Your task to perform on an android device: turn on javascript in the chrome app Image 0: 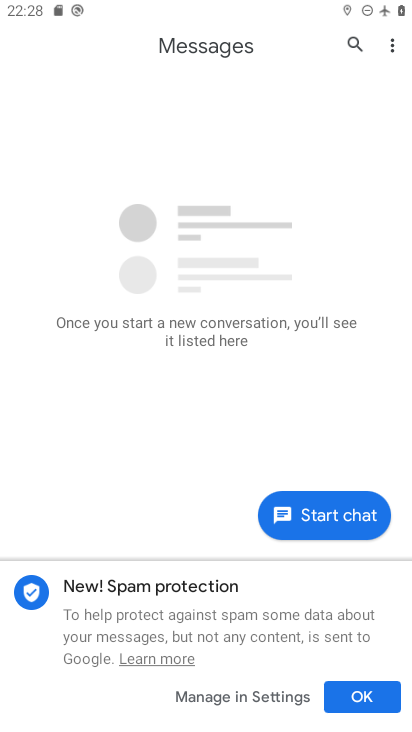
Step 0: press home button
Your task to perform on an android device: turn on javascript in the chrome app Image 1: 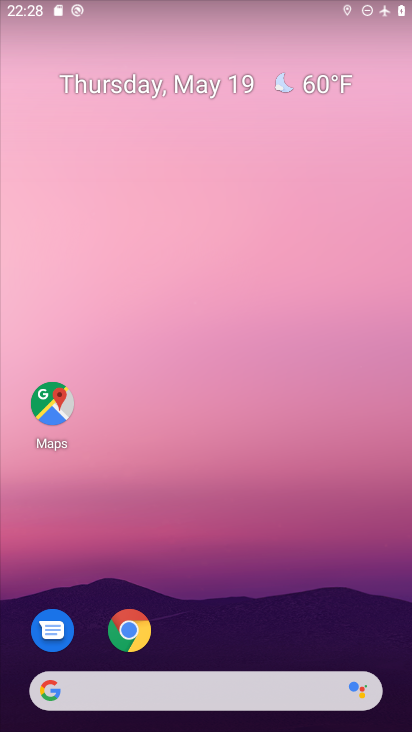
Step 1: click (129, 622)
Your task to perform on an android device: turn on javascript in the chrome app Image 2: 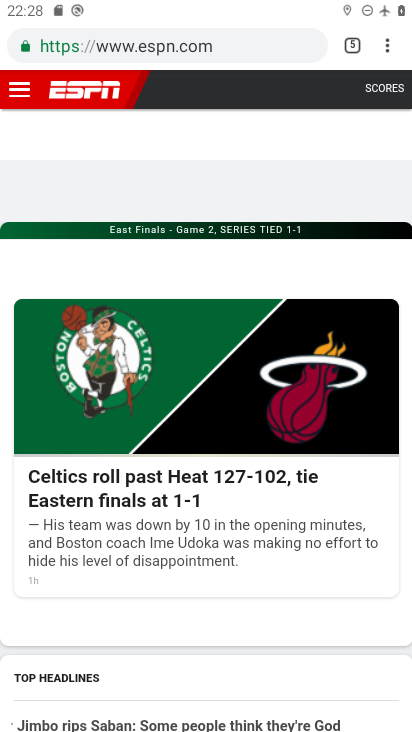
Step 2: click (389, 43)
Your task to perform on an android device: turn on javascript in the chrome app Image 3: 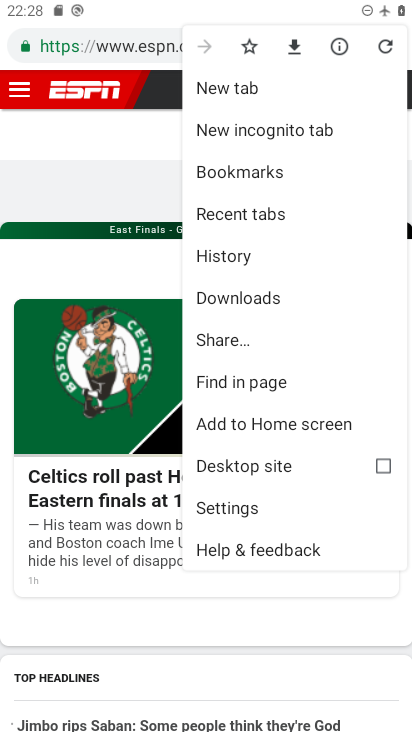
Step 3: click (237, 504)
Your task to perform on an android device: turn on javascript in the chrome app Image 4: 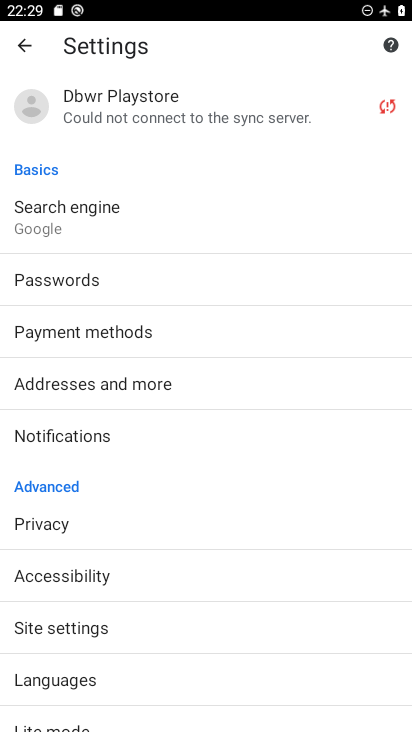
Step 4: drag from (234, 446) to (170, 162)
Your task to perform on an android device: turn on javascript in the chrome app Image 5: 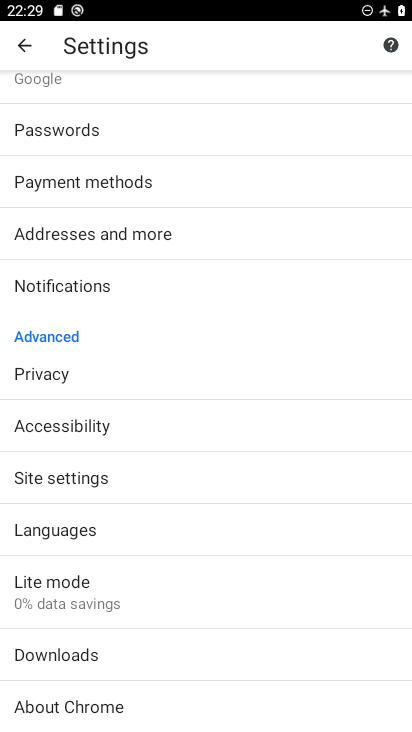
Step 5: click (81, 477)
Your task to perform on an android device: turn on javascript in the chrome app Image 6: 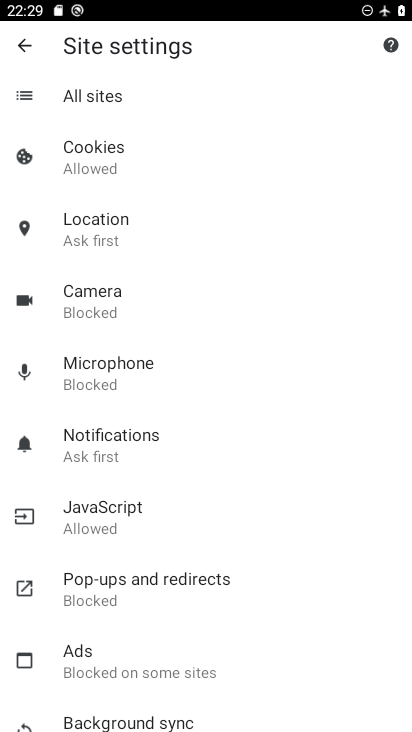
Step 6: click (98, 504)
Your task to perform on an android device: turn on javascript in the chrome app Image 7: 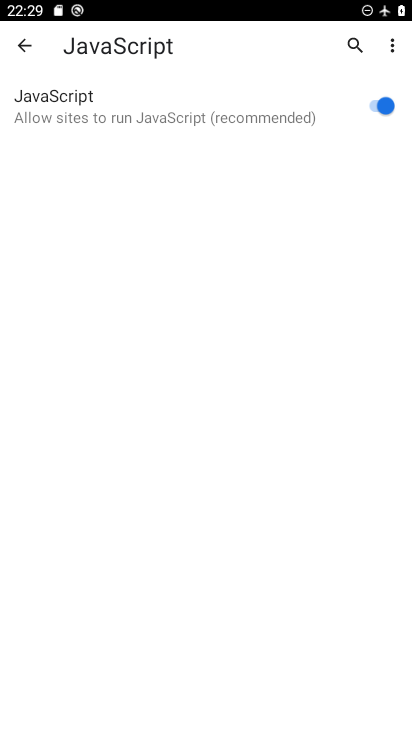
Step 7: task complete